Your task to perform on an android device: find snoozed emails in the gmail app Image 0: 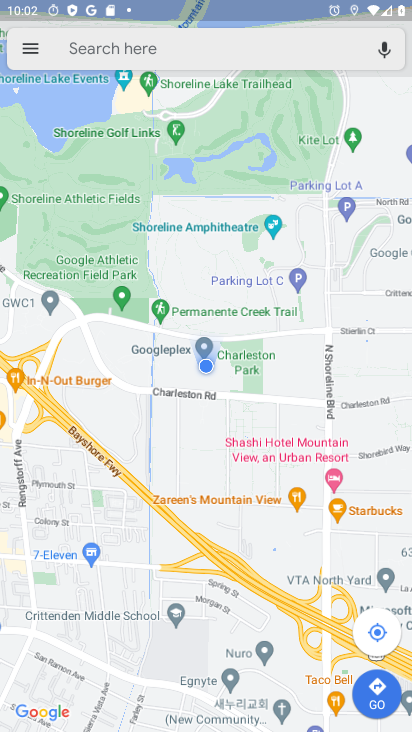
Step 0: press home button
Your task to perform on an android device: find snoozed emails in the gmail app Image 1: 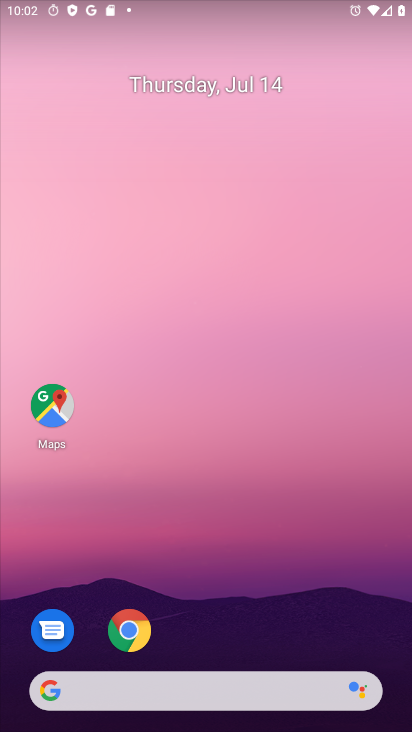
Step 1: drag from (12, 711) to (90, 298)
Your task to perform on an android device: find snoozed emails in the gmail app Image 2: 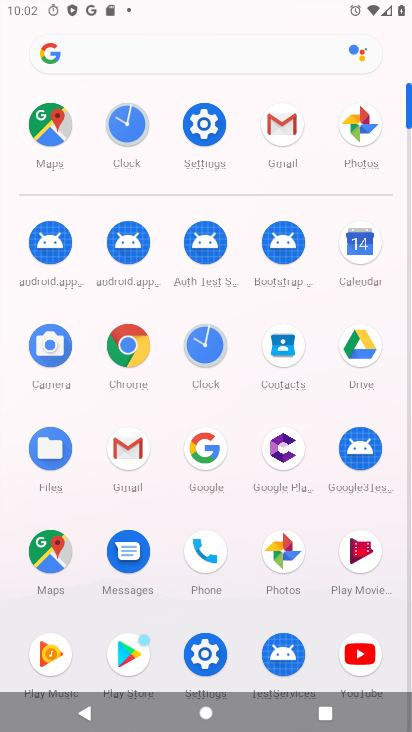
Step 2: click (119, 455)
Your task to perform on an android device: find snoozed emails in the gmail app Image 3: 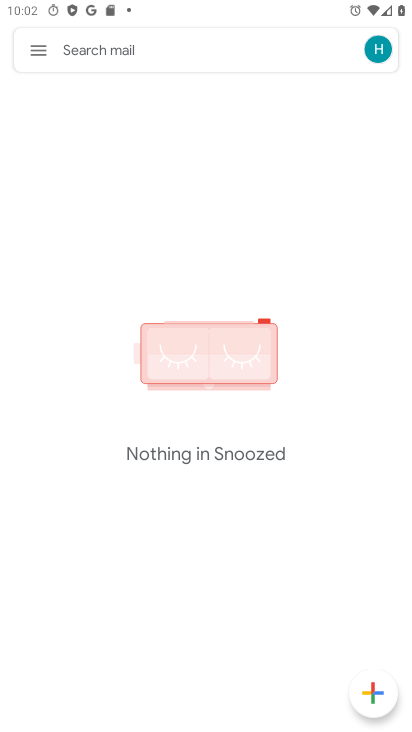
Step 3: click (31, 64)
Your task to perform on an android device: find snoozed emails in the gmail app Image 4: 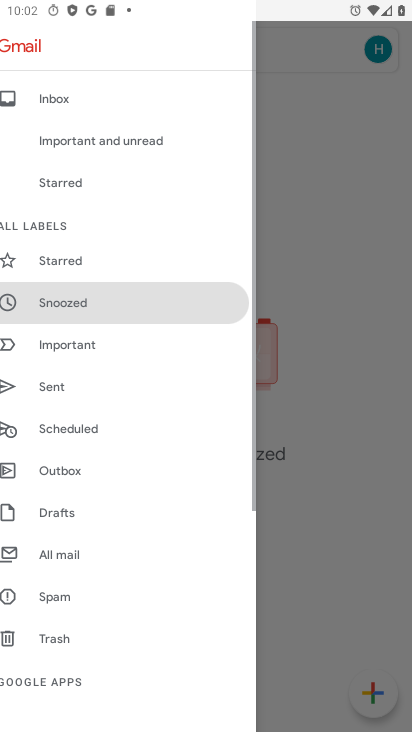
Step 4: click (33, 56)
Your task to perform on an android device: find snoozed emails in the gmail app Image 5: 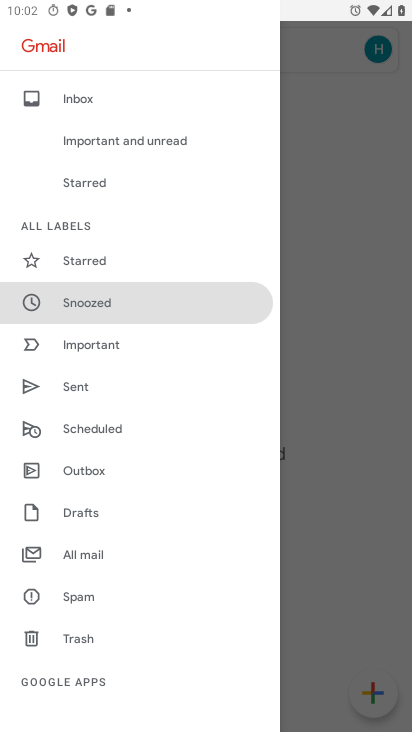
Step 5: click (70, 297)
Your task to perform on an android device: find snoozed emails in the gmail app Image 6: 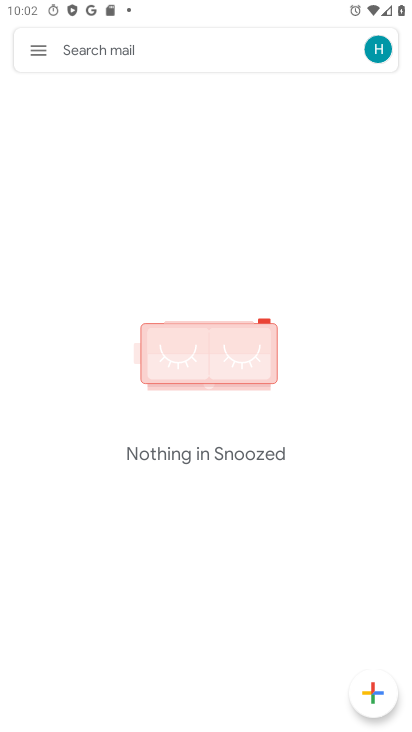
Step 6: task complete